Your task to perform on an android device: Open Youtube and go to "Your channel" Image 0: 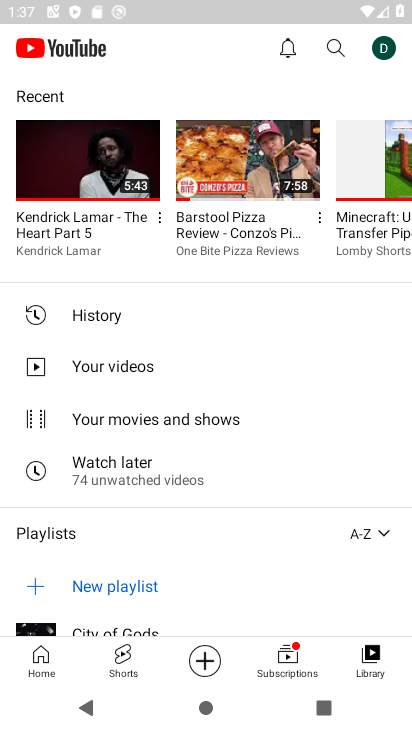
Step 0: drag from (149, 578) to (235, 397)
Your task to perform on an android device: Open Youtube and go to "Your channel" Image 1: 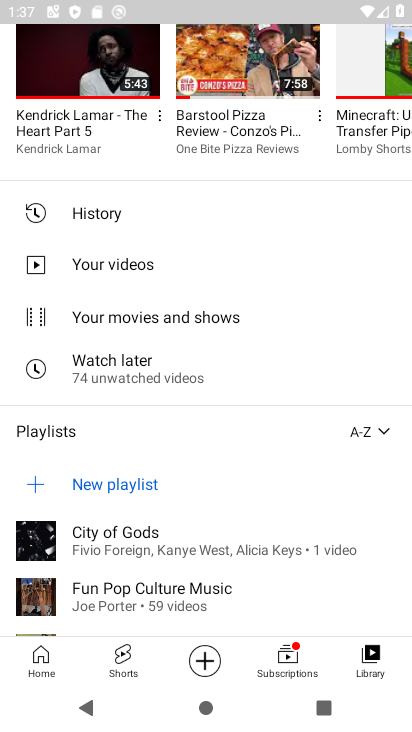
Step 1: click (296, 670)
Your task to perform on an android device: Open Youtube and go to "Your channel" Image 2: 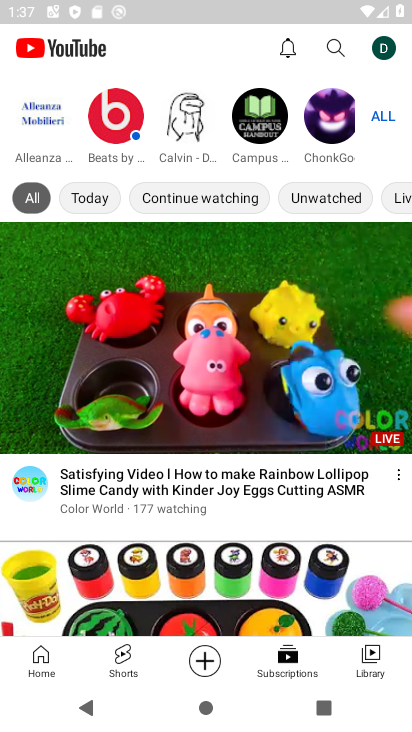
Step 2: click (382, 49)
Your task to perform on an android device: Open Youtube and go to "Your channel" Image 3: 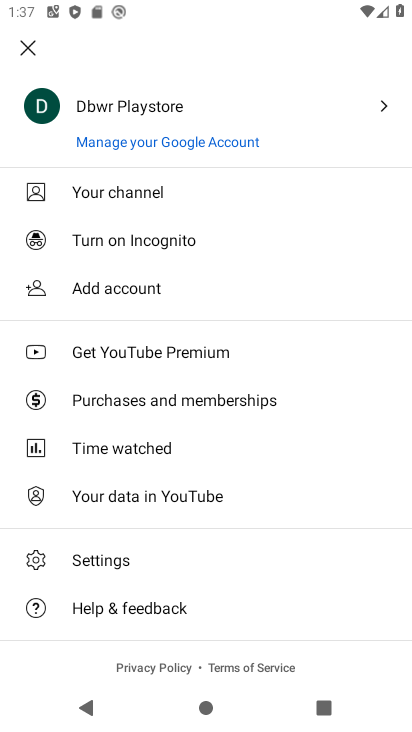
Step 3: click (148, 201)
Your task to perform on an android device: Open Youtube and go to "Your channel" Image 4: 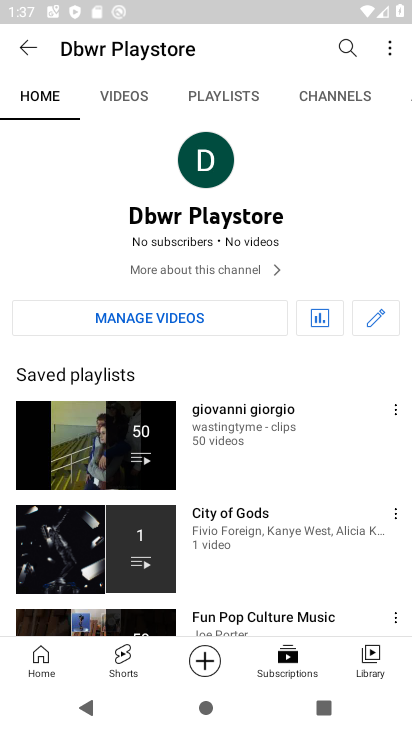
Step 4: task complete